Your task to perform on an android device: uninstall "Adobe Acrobat Reader" Image 0: 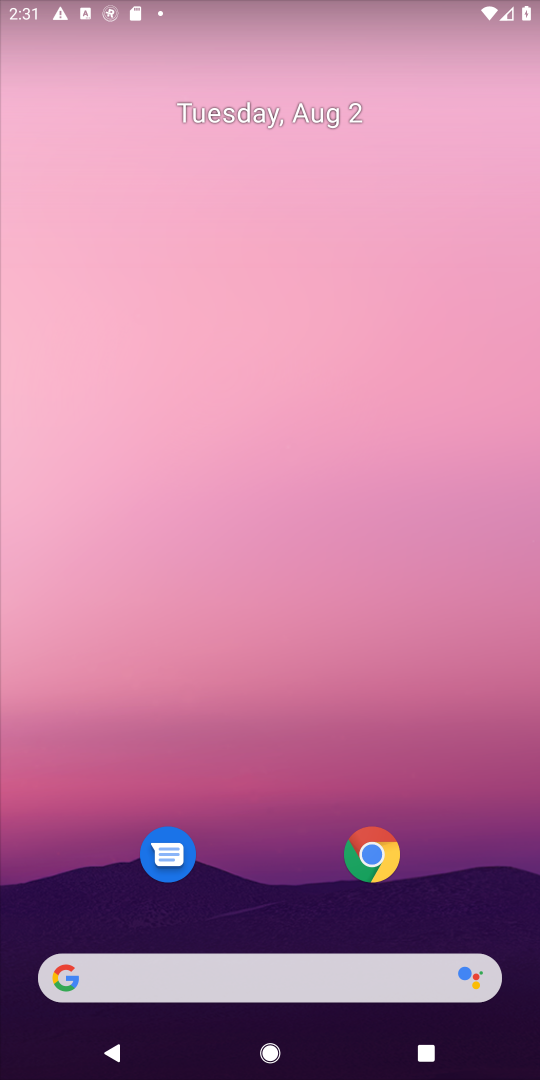
Step 0: drag from (294, 814) to (315, 433)
Your task to perform on an android device: uninstall "Adobe Acrobat Reader" Image 1: 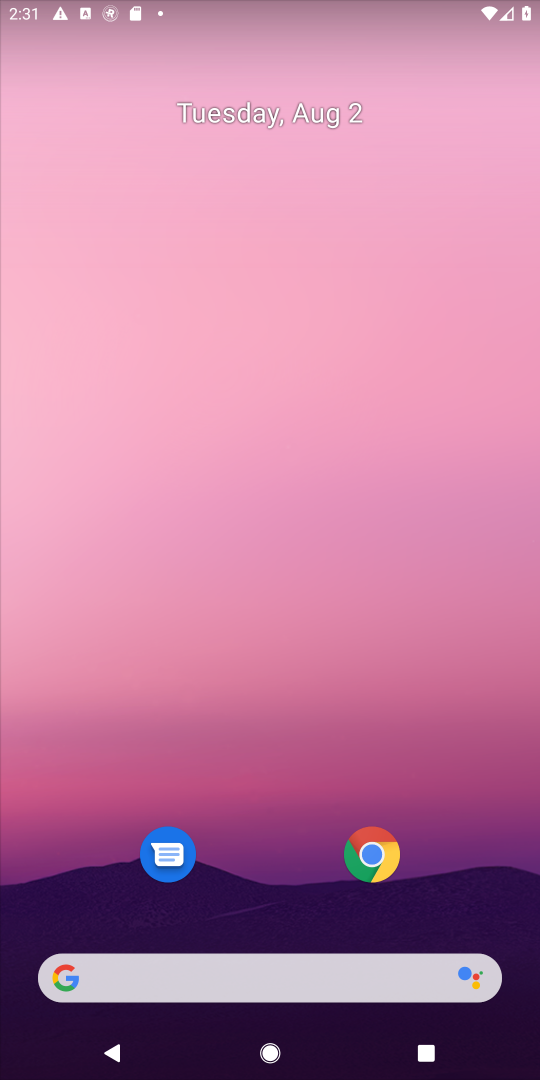
Step 1: drag from (304, 1072) to (265, 2)
Your task to perform on an android device: uninstall "Adobe Acrobat Reader" Image 2: 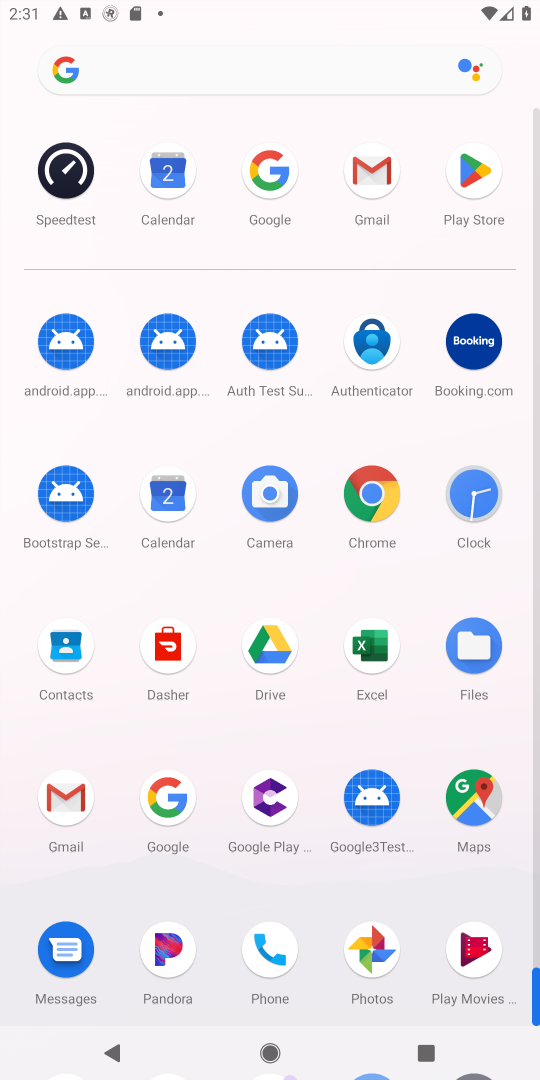
Step 2: click (474, 178)
Your task to perform on an android device: uninstall "Adobe Acrobat Reader" Image 3: 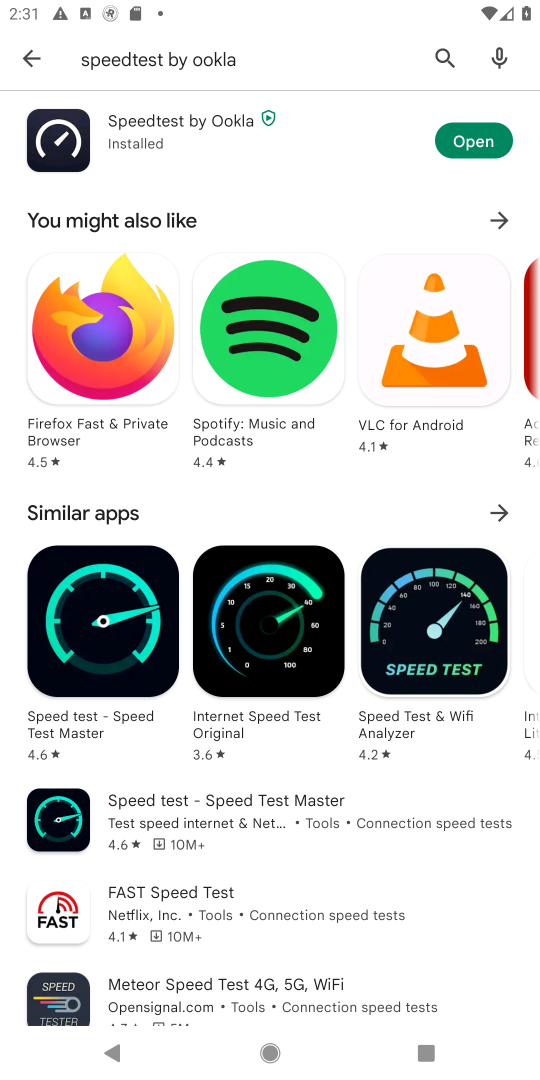
Step 3: click (441, 49)
Your task to perform on an android device: uninstall "Adobe Acrobat Reader" Image 4: 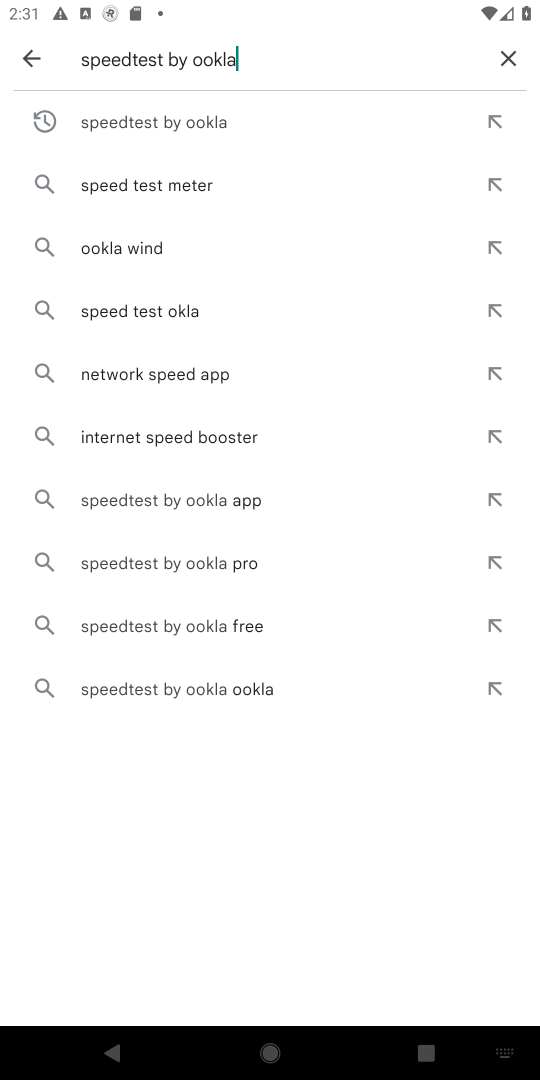
Step 4: click (505, 53)
Your task to perform on an android device: uninstall "Adobe Acrobat Reader" Image 5: 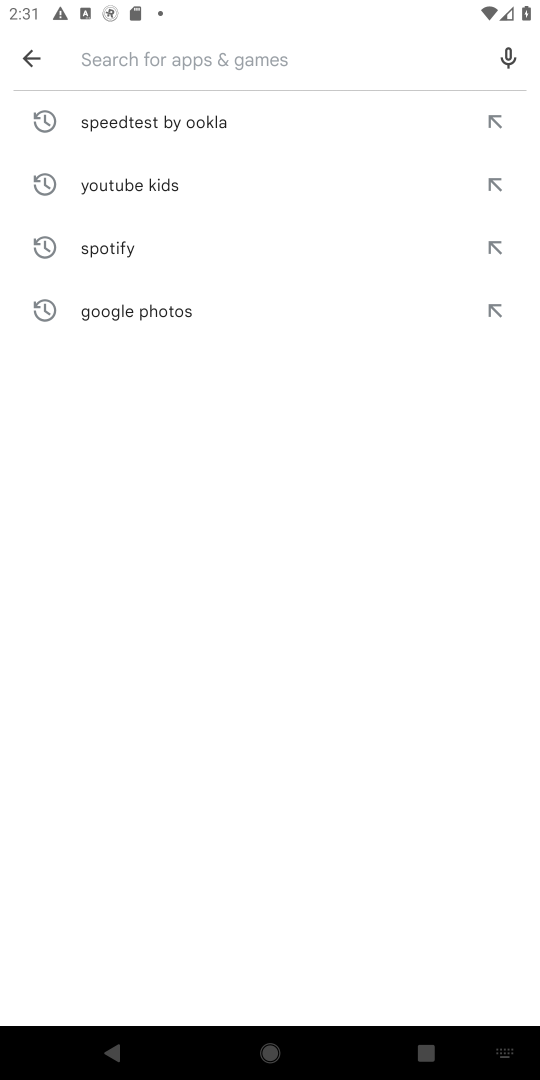
Step 5: type "dobe Acrobat Reader "
Your task to perform on an android device: uninstall "Adobe Acrobat Reader" Image 6: 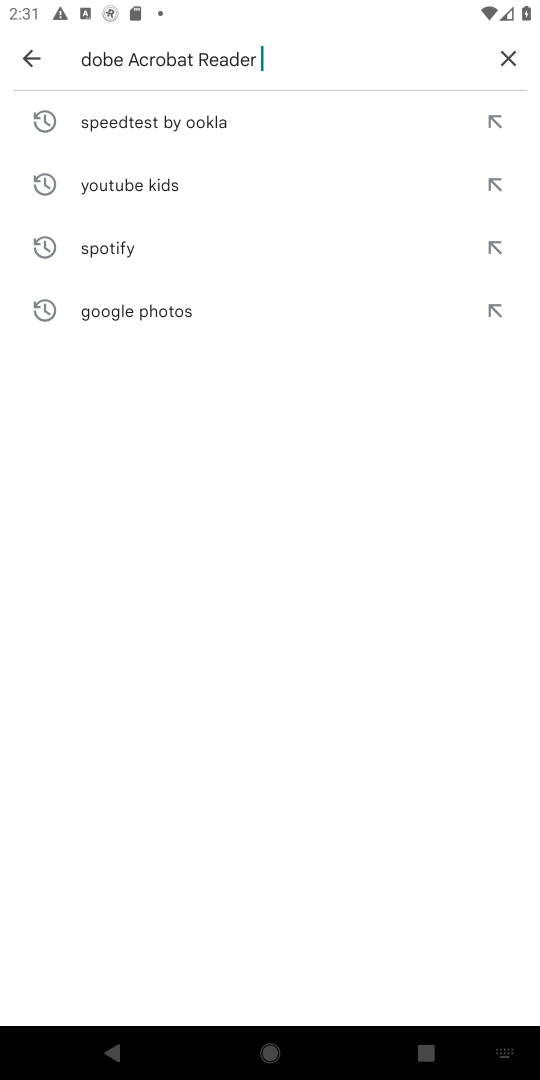
Step 6: type ""
Your task to perform on an android device: uninstall "Adobe Acrobat Reader" Image 7: 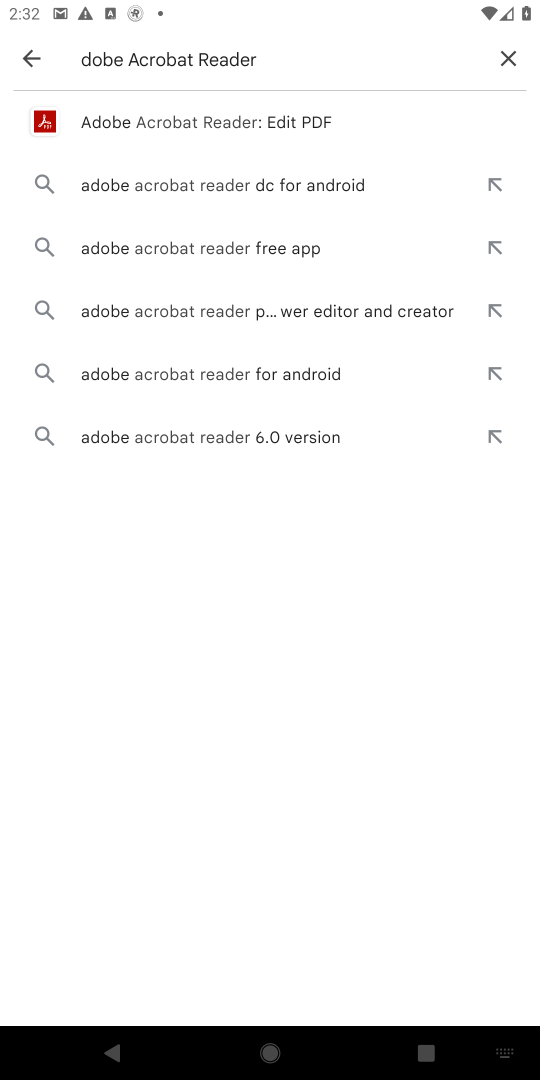
Step 7: click (207, 121)
Your task to perform on an android device: uninstall "Adobe Acrobat Reader" Image 8: 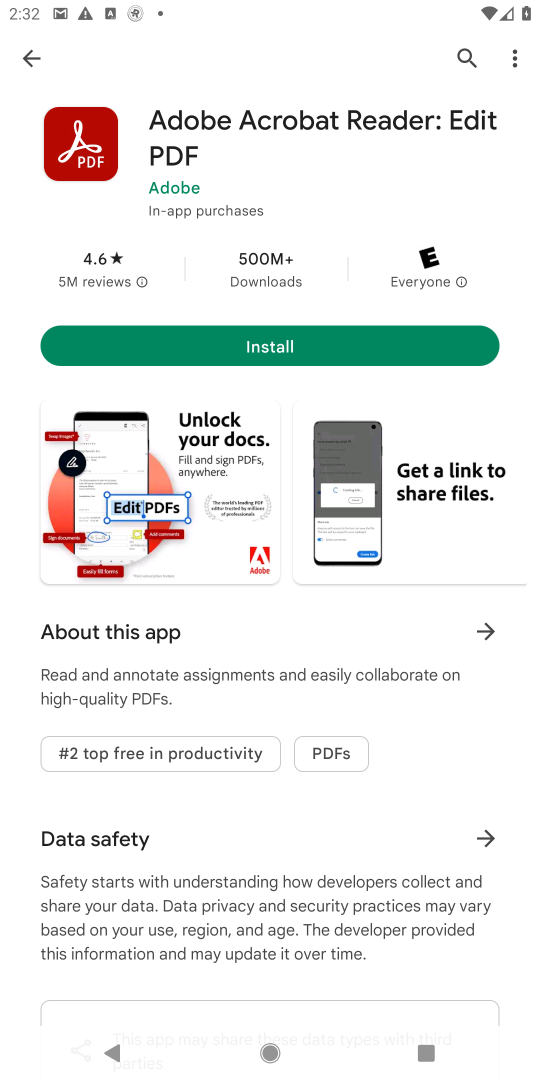
Step 8: task complete